Your task to perform on an android device: turn on sleep mode Image 0: 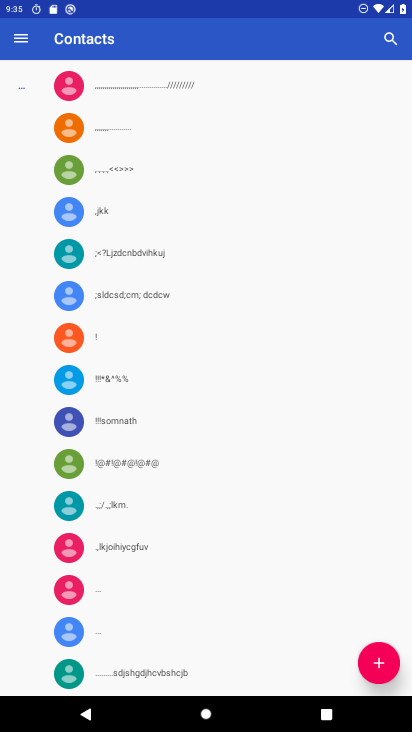
Step 0: press home button
Your task to perform on an android device: turn on sleep mode Image 1: 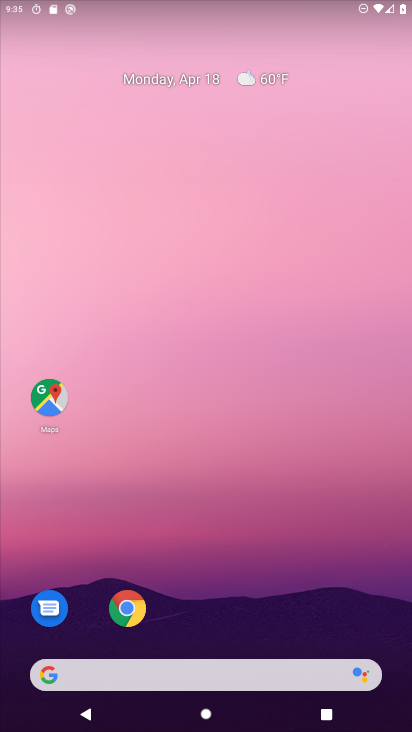
Step 1: drag from (362, 500) to (351, 7)
Your task to perform on an android device: turn on sleep mode Image 2: 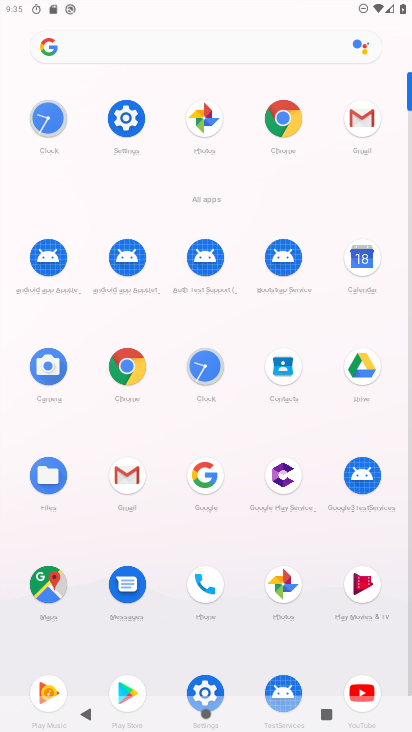
Step 2: click (119, 108)
Your task to perform on an android device: turn on sleep mode Image 3: 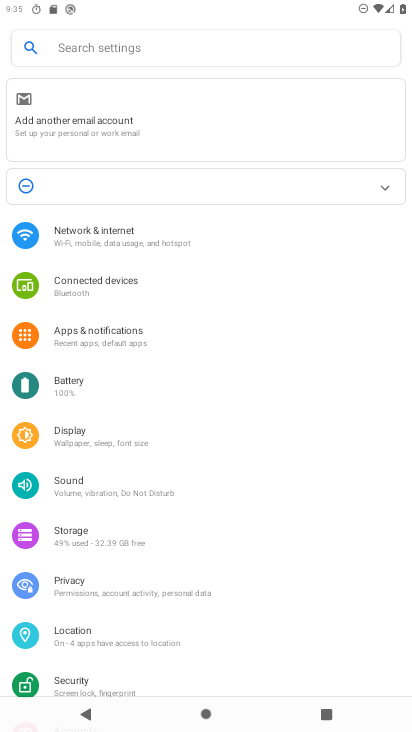
Step 3: click (64, 429)
Your task to perform on an android device: turn on sleep mode Image 4: 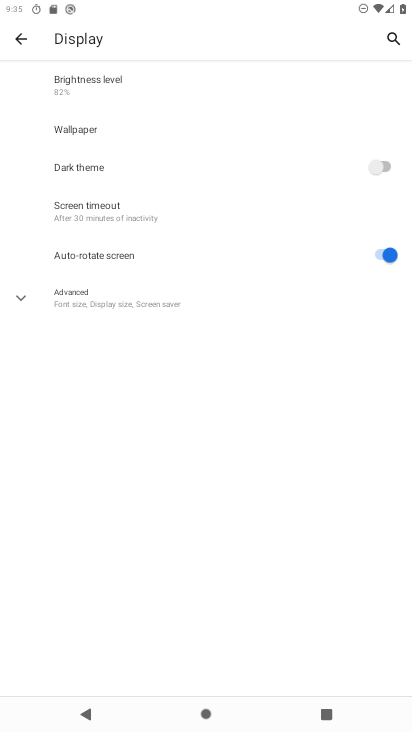
Step 4: click (107, 253)
Your task to perform on an android device: turn on sleep mode Image 5: 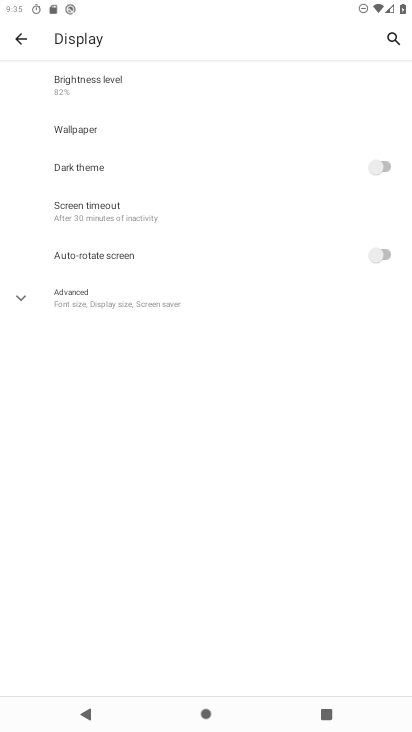
Step 5: click (380, 257)
Your task to perform on an android device: turn on sleep mode Image 6: 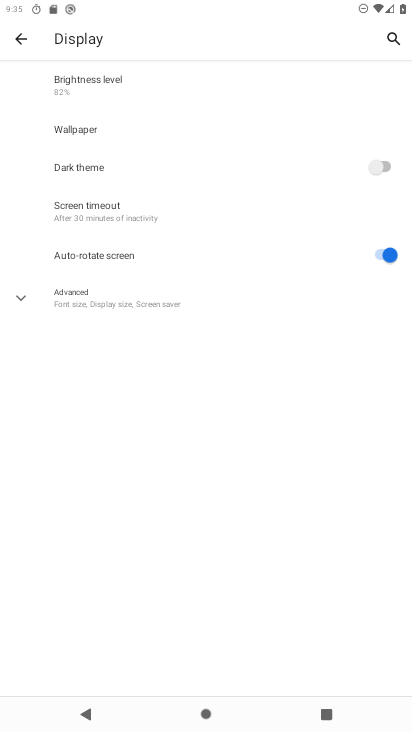
Step 6: click (90, 207)
Your task to perform on an android device: turn on sleep mode Image 7: 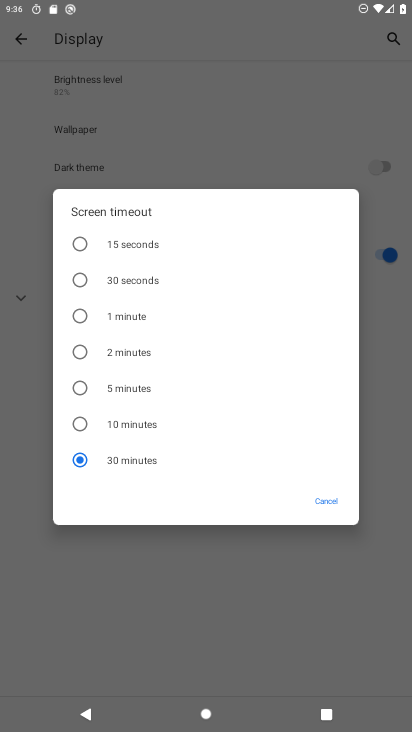
Step 7: task complete